Your task to perform on an android device: What's the weather going to be this weekend? Image 0: 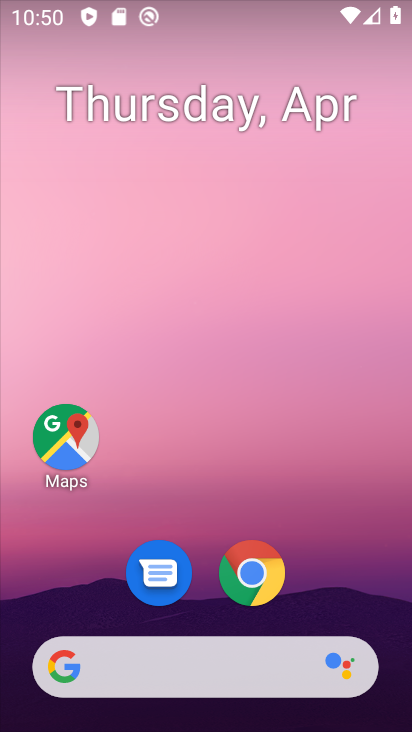
Step 0: drag from (342, 572) to (372, 61)
Your task to perform on an android device: What's the weather going to be this weekend? Image 1: 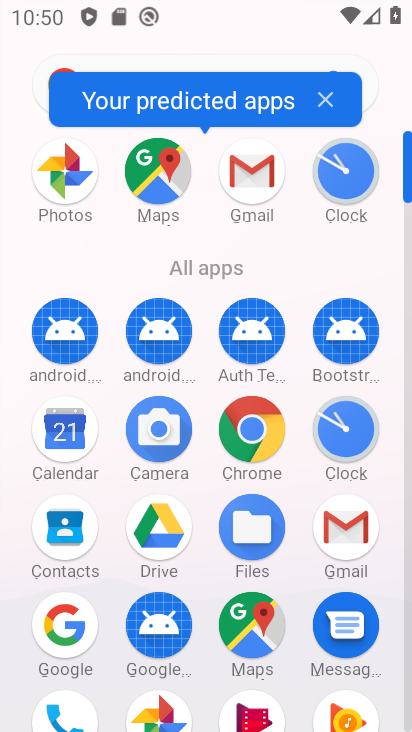
Step 1: click (251, 421)
Your task to perform on an android device: What's the weather going to be this weekend? Image 2: 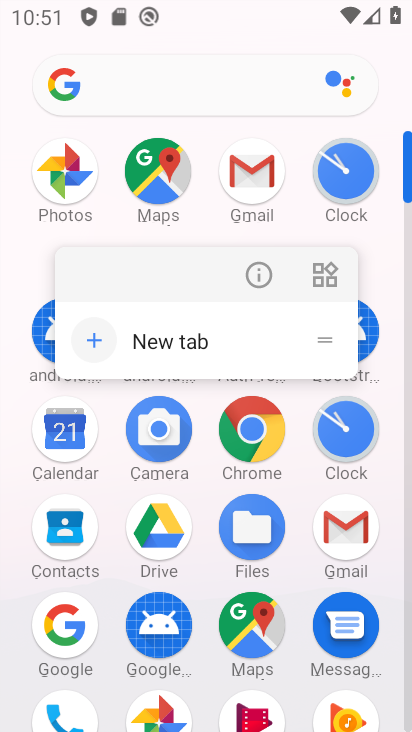
Step 2: click (256, 448)
Your task to perform on an android device: What's the weather going to be this weekend? Image 3: 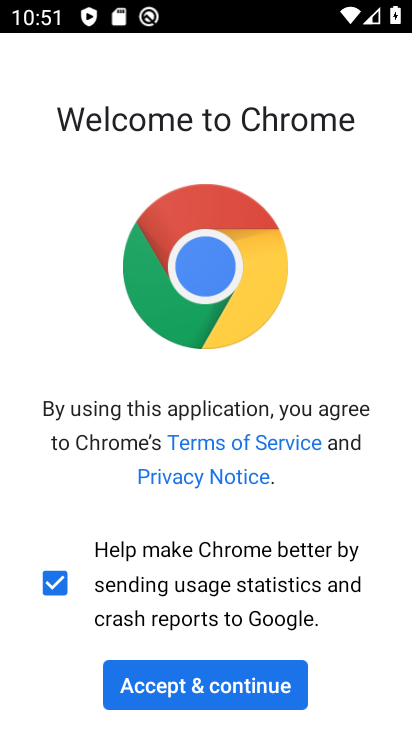
Step 3: click (217, 690)
Your task to perform on an android device: What's the weather going to be this weekend? Image 4: 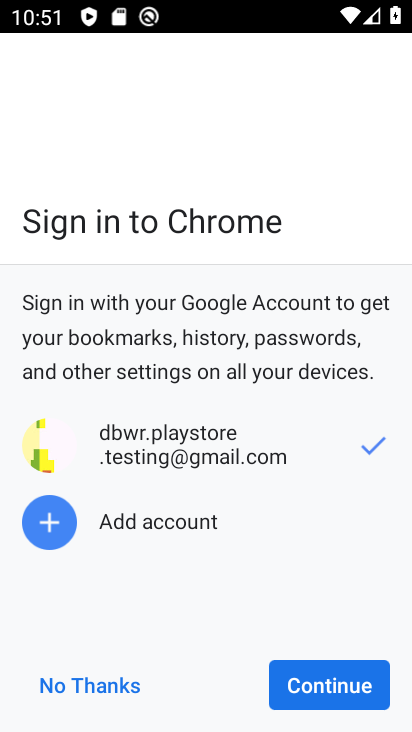
Step 4: click (340, 686)
Your task to perform on an android device: What's the weather going to be this weekend? Image 5: 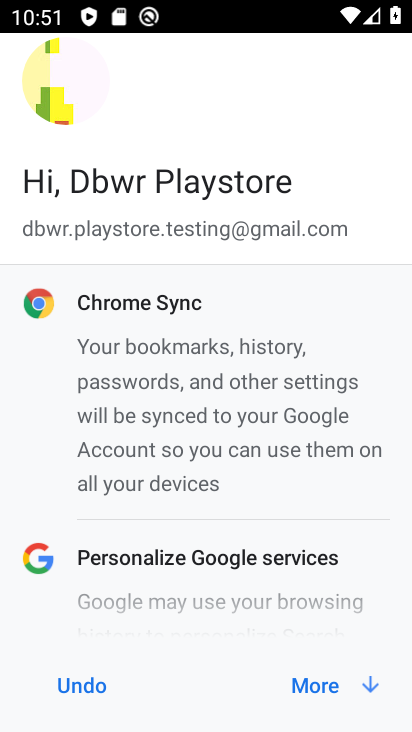
Step 5: click (369, 681)
Your task to perform on an android device: What's the weather going to be this weekend? Image 6: 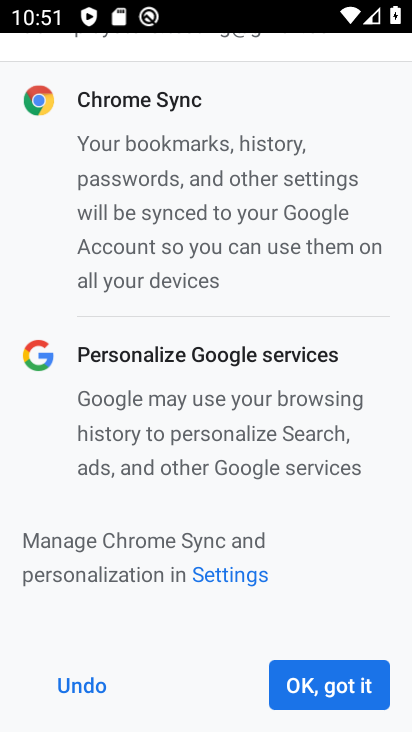
Step 6: click (369, 681)
Your task to perform on an android device: What's the weather going to be this weekend? Image 7: 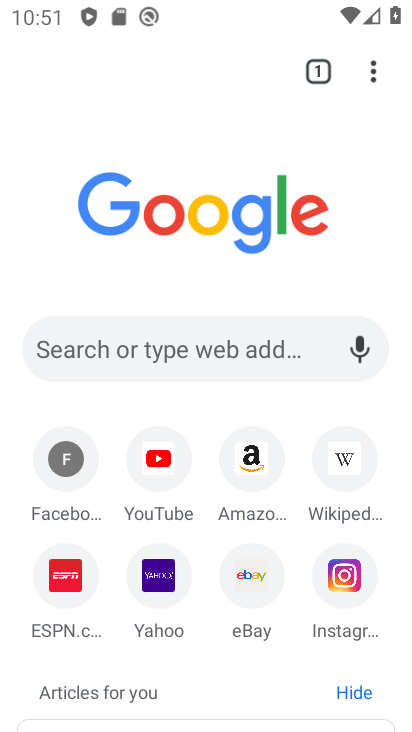
Step 7: click (141, 351)
Your task to perform on an android device: What's the weather going to be this weekend? Image 8: 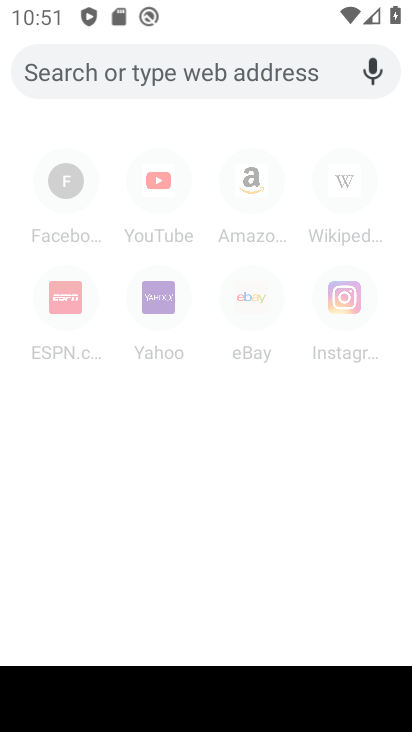
Step 8: type "What's the weather going to be this weekend?"
Your task to perform on an android device: What's the weather going to be this weekend? Image 9: 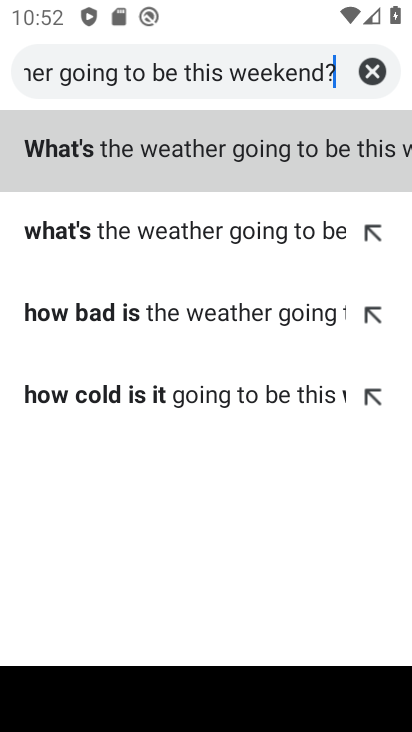
Step 9: click (256, 151)
Your task to perform on an android device: What's the weather going to be this weekend? Image 10: 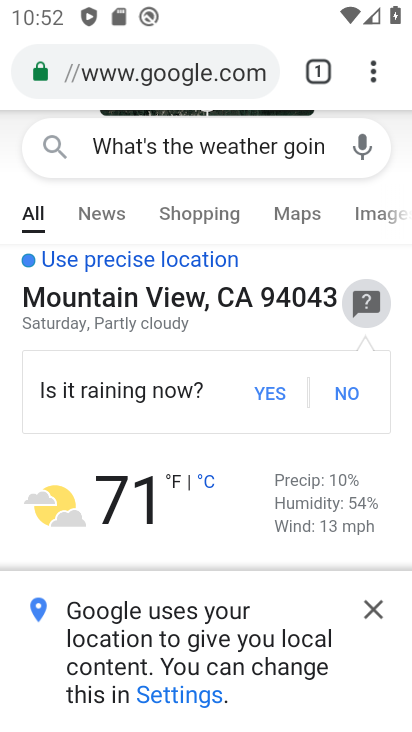
Step 10: task complete